Your task to perform on an android device: change your default location settings in chrome Image 0: 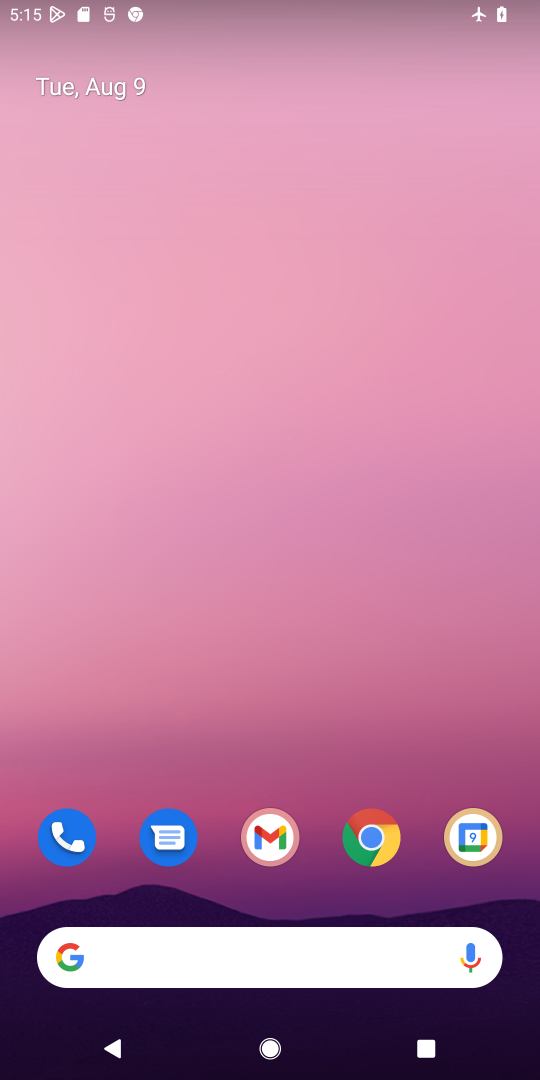
Step 0: drag from (316, 784) to (315, 169)
Your task to perform on an android device: change your default location settings in chrome Image 1: 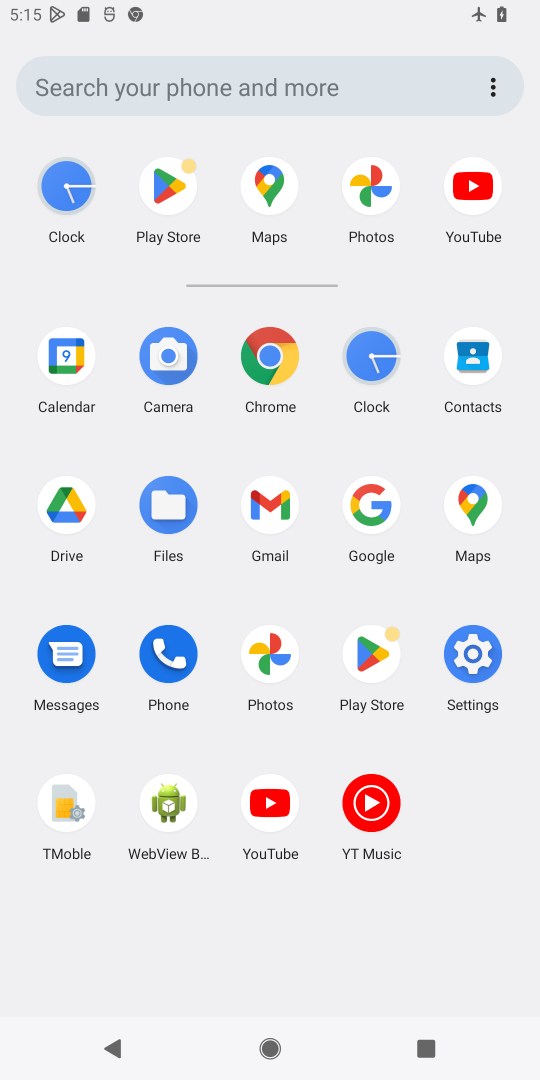
Step 1: click (278, 359)
Your task to perform on an android device: change your default location settings in chrome Image 2: 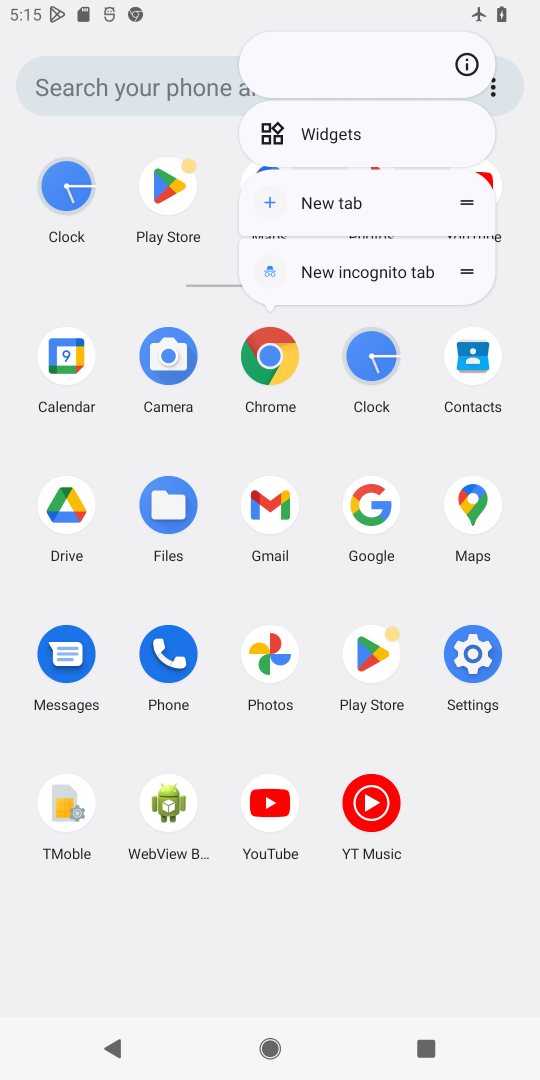
Step 2: click (284, 359)
Your task to perform on an android device: change your default location settings in chrome Image 3: 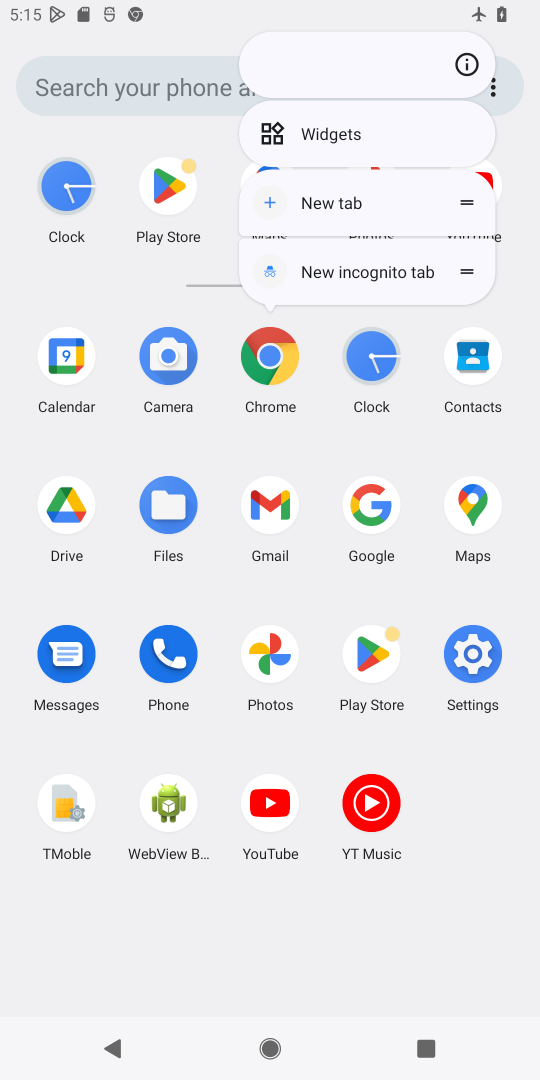
Step 3: click (284, 359)
Your task to perform on an android device: change your default location settings in chrome Image 4: 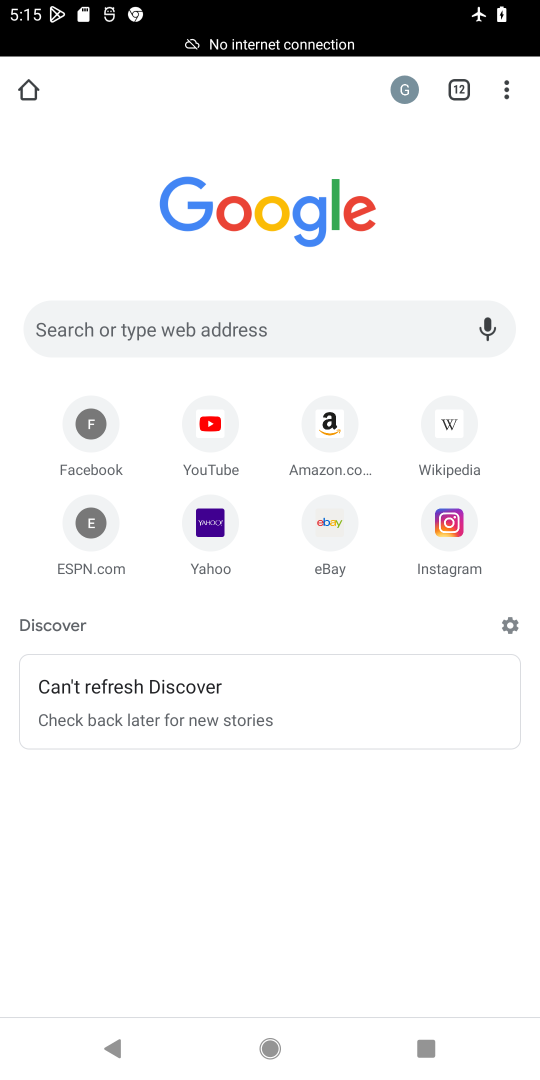
Step 4: click (502, 94)
Your task to perform on an android device: change your default location settings in chrome Image 5: 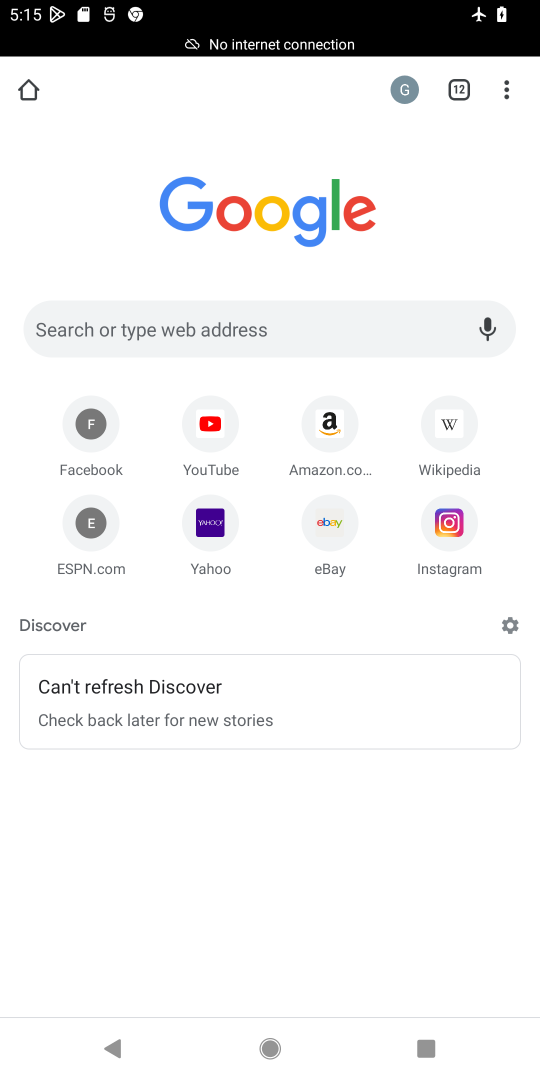
Step 5: click (505, 90)
Your task to perform on an android device: change your default location settings in chrome Image 6: 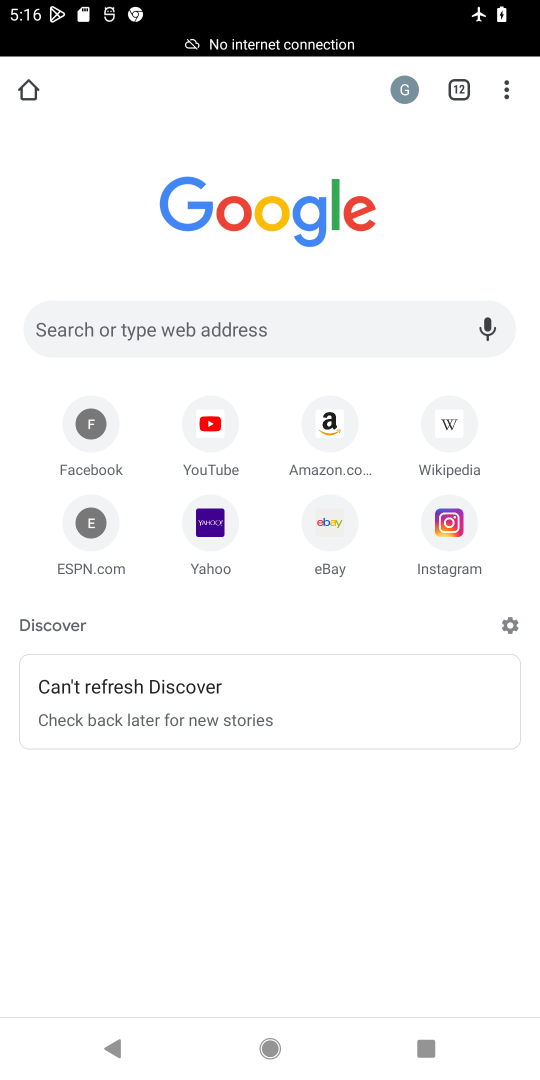
Step 6: click (494, 85)
Your task to perform on an android device: change your default location settings in chrome Image 7: 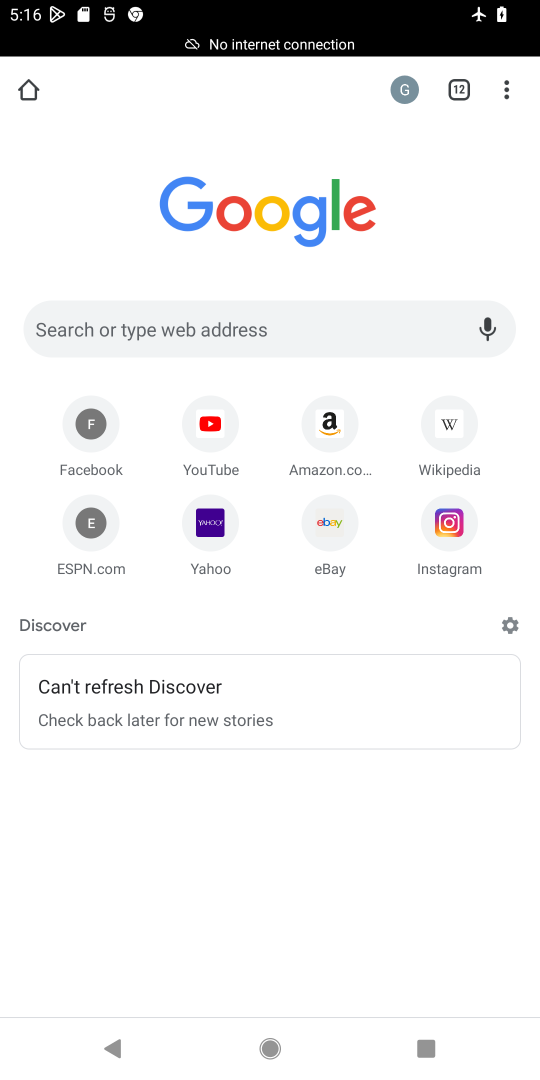
Step 7: click (521, 72)
Your task to perform on an android device: change your default location settings in chrome Image 8: 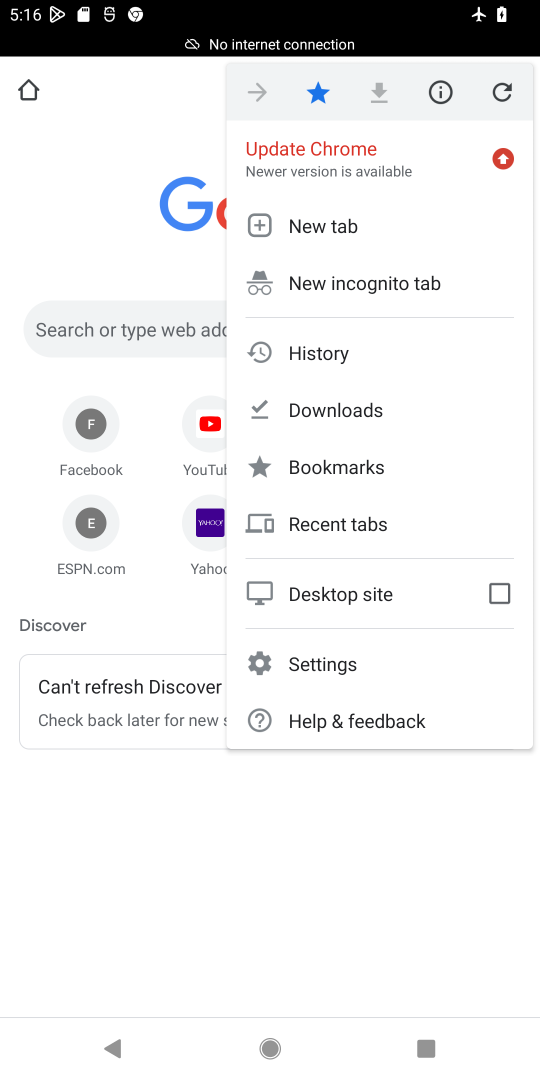
Step 8: click (326, 652)
Your task to perform on an android device: change your default location settings in chrome Image 9: 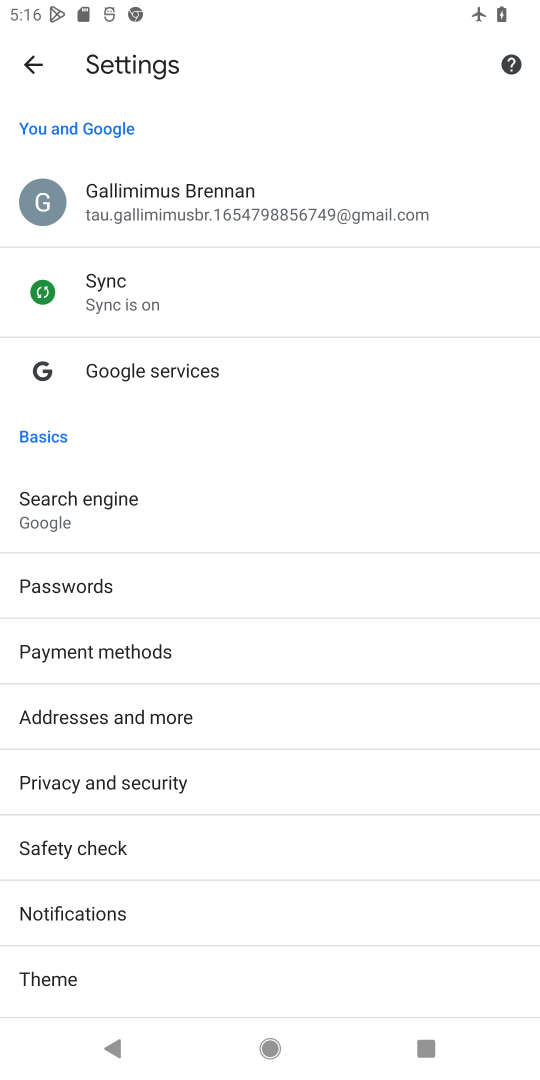
Step 9: drag from (163, 952) to (375, 365)
Your task to perform on an android device: change your default location settings in chrome Image 10: 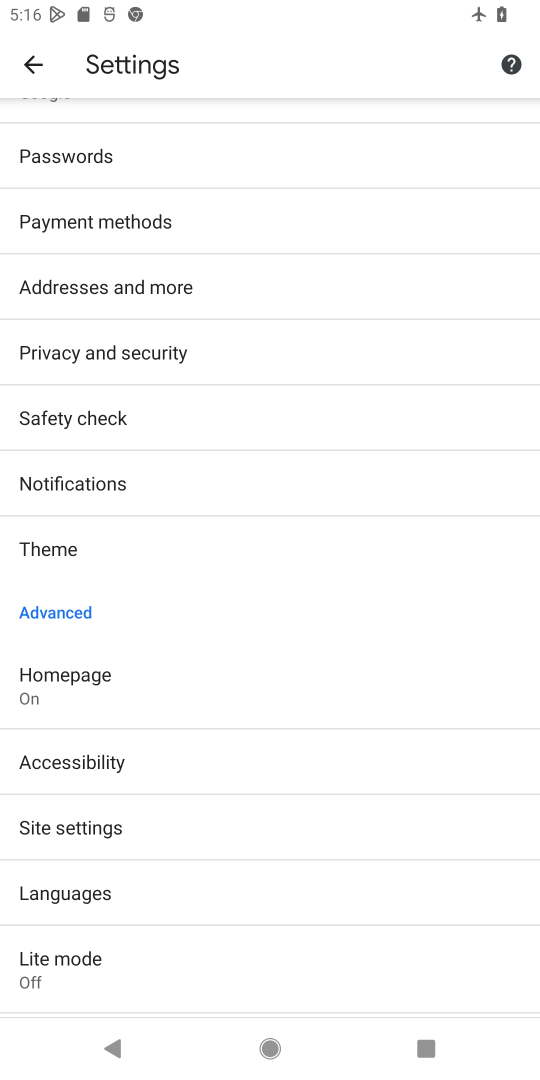
Step 10: click (167, 819)
Your task to perform on an android device: change your default location settings in chrome Image 11: 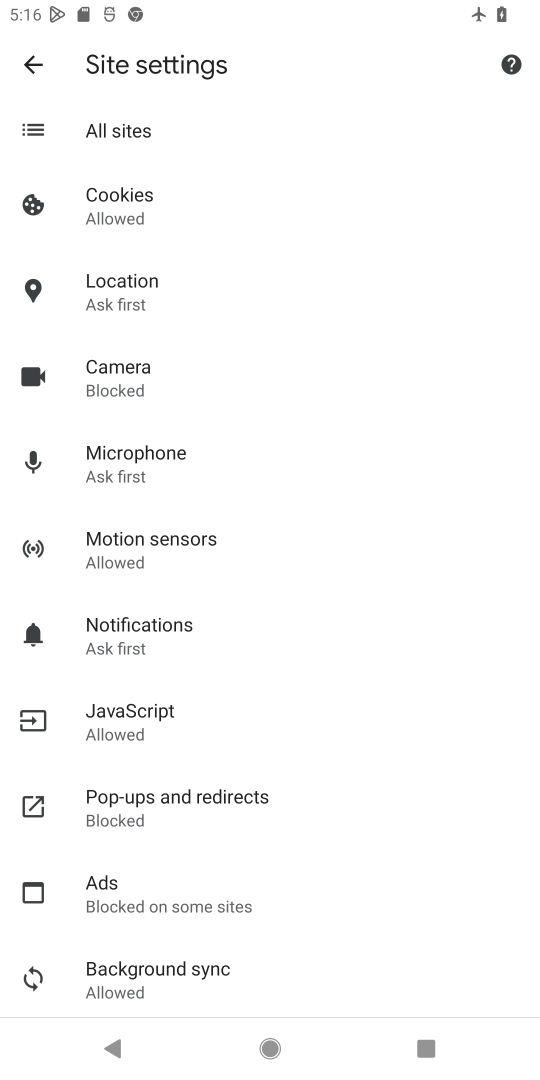
Step 11: click (143, 287)
Your task to perform on an android device: change your default location settings in chrome Image 12: 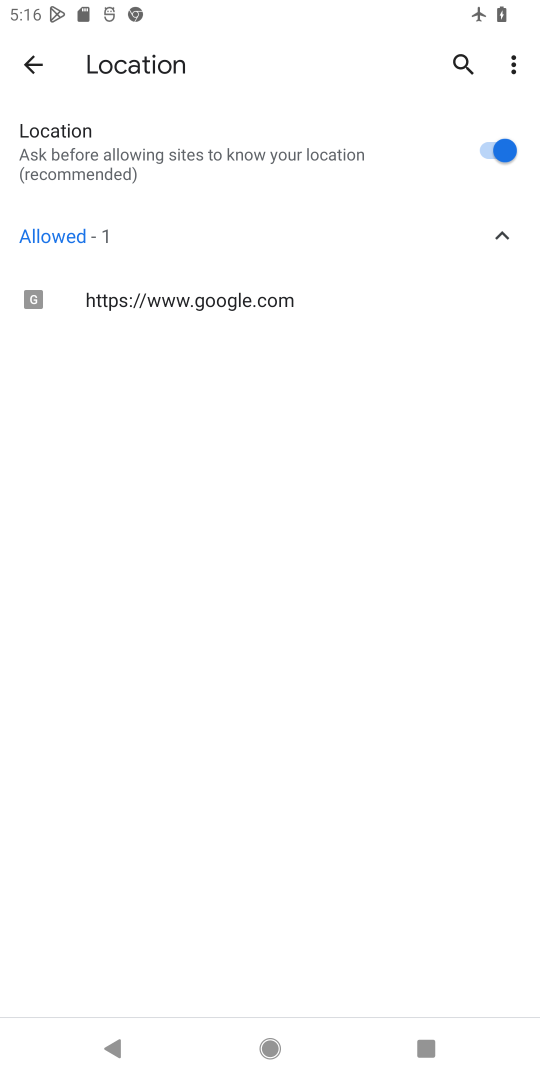
Step 12: click (496, 154)
Your task to perform on an android device: change your default location settings in chrome Image 13: 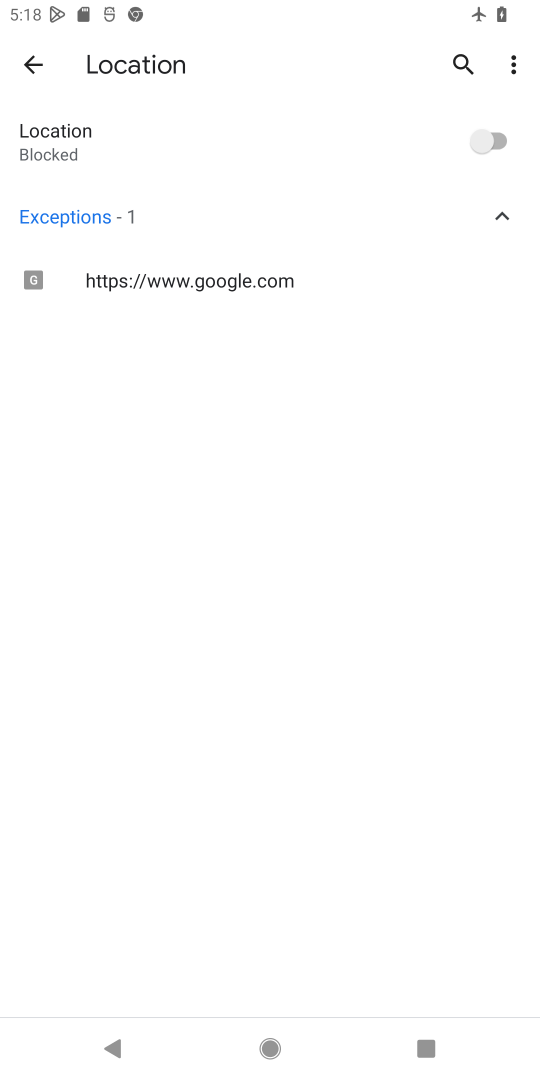
Step 13: task complete